Your task to perform on an android device: toggle data saver in the chrome app Image 0: 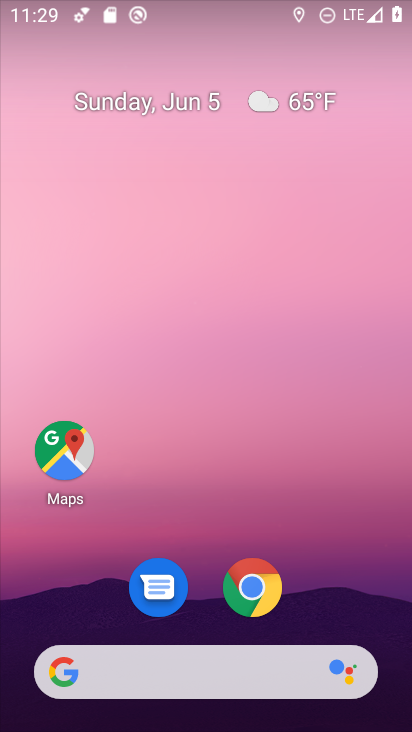
Step 0: click (251, 592)
Your task to perform on an android device: toggle data saver in the chrome app Image 1: 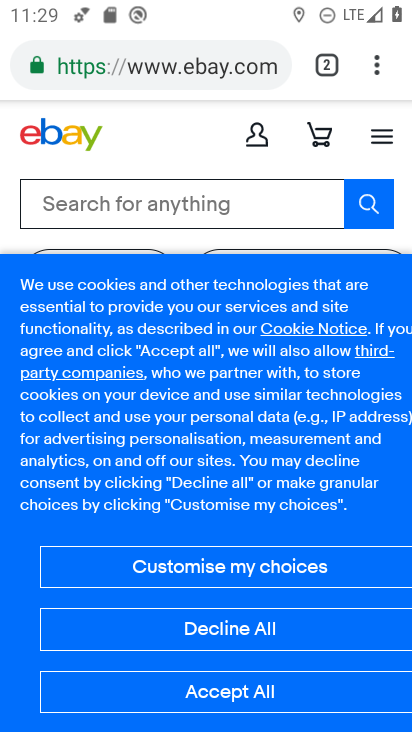
Step 1: click (385, 57)
Your task to perform on an android device: toggle data saver in the chrome app Image 2: 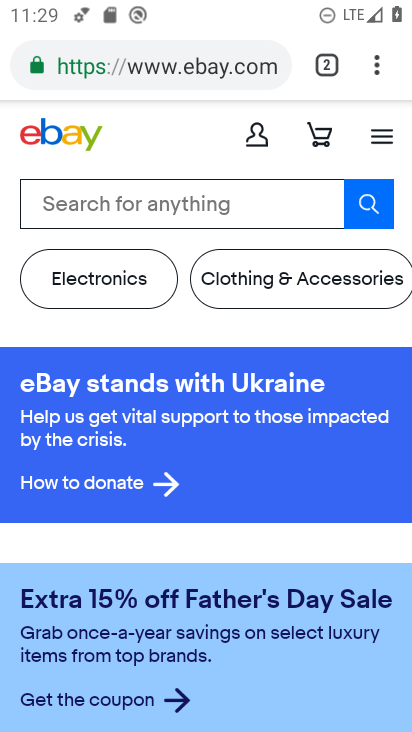
Step 2: click (386, 63)
Your task to perform on an android device: toggle data saver in the chrome app Image 3: 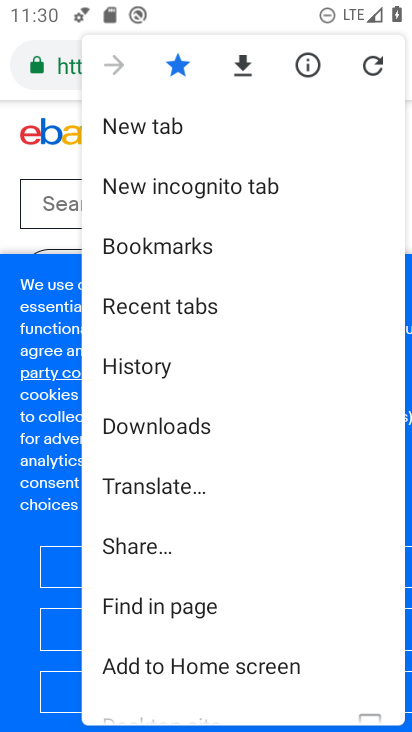
Step 3: drag from (152, 622) to (235, 142)
Your task to perform on an android device: toggle data saver in the chrome app Image 4: 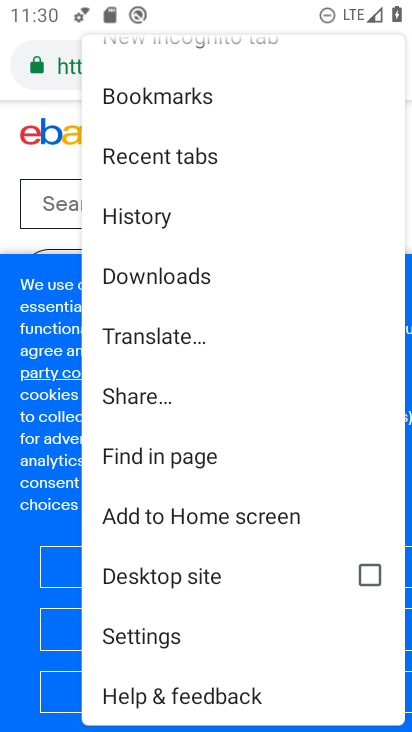
Step 4: click (152, 647)
Your task to perform on an android device: toggle data saver in the chrome app Image 5: 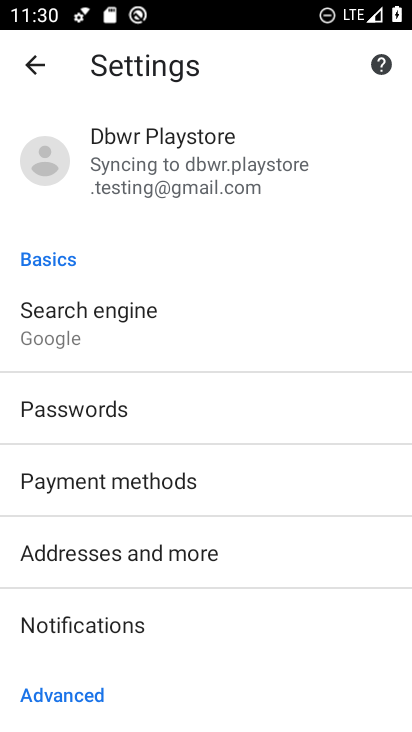
Step 5: drag from (125, 622) to (186, 336)
Your task to perform on an android device: toggle data saver in the chrome app Image 6: 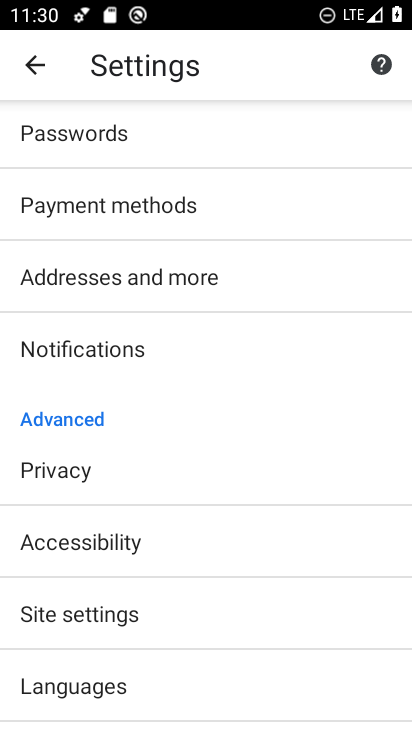
Step 6: drag from (80, 671) to (166, 221)
Your task to perform on an android device: toggle data saver in the chrome app Image 7: 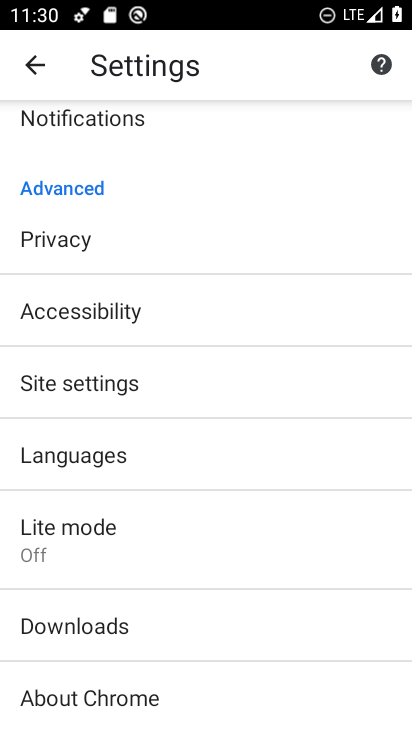
Step 7: click (109, 522)
Your task to perform on an android device: toggle data saver in the chrome app Image 8: 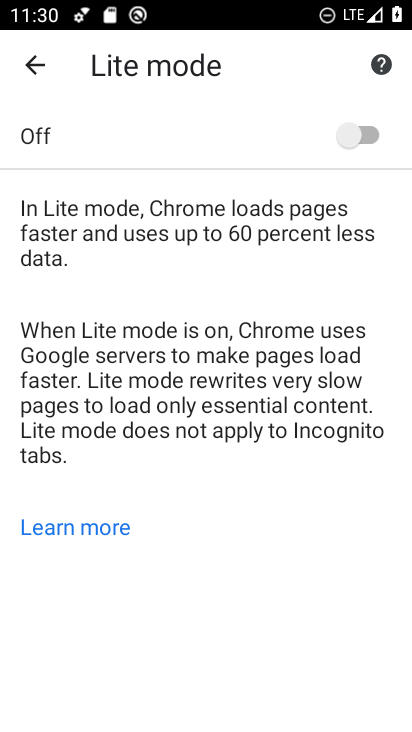
Step 8: click (380, 141)
Your task to perform on an android device: toggle data saver in the chrome app Image 9: 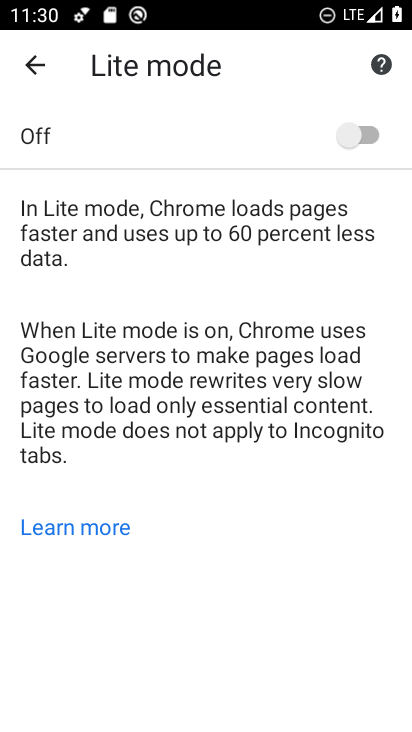
Step 9: click (380, 141)
Your task to perform on an android device: toggle data saver in the chrome app Image 10: 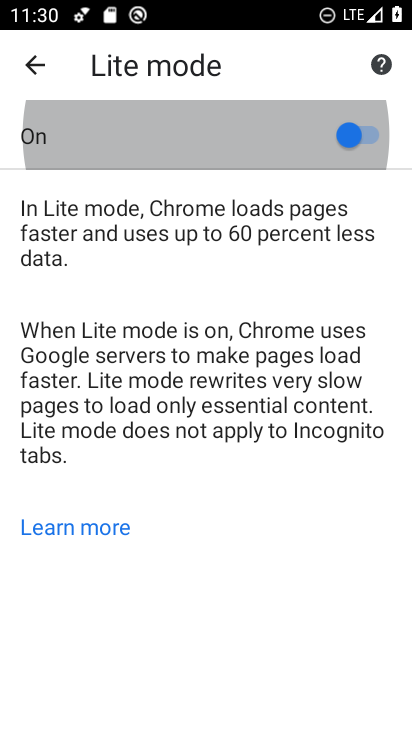
Step 10: click (380, 141)
Your task to perform on an android device: toggle data saver in the chrome app Image 11: 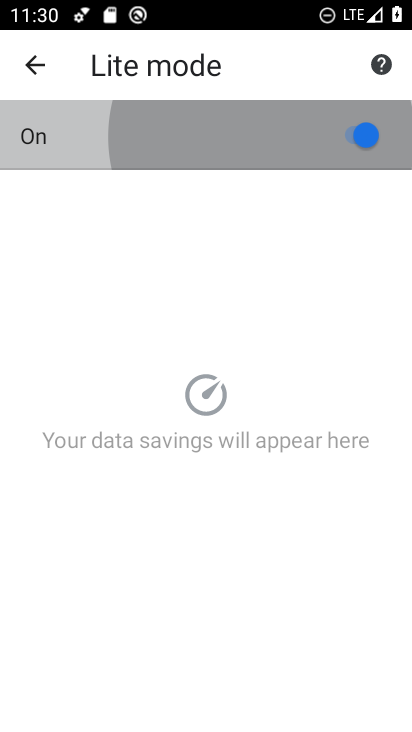
Step 11: click (380, 141)
Your task to perform on an android device: toggle data saver in the chrome app Image 12: 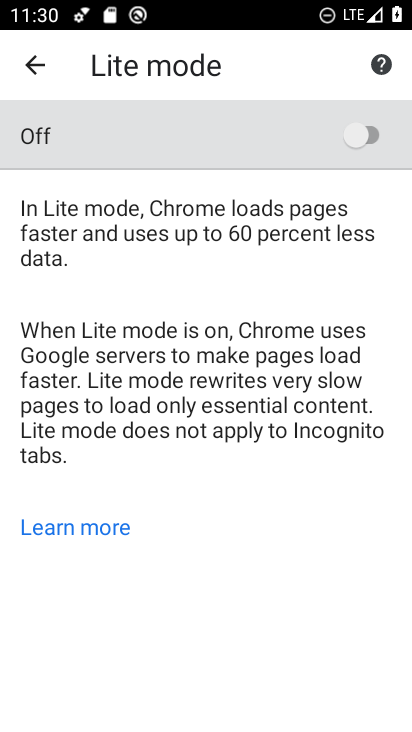
Step 12: click (380, 141)
Your task to perform on an android device: toggle data saver in the chrome app Image 13: 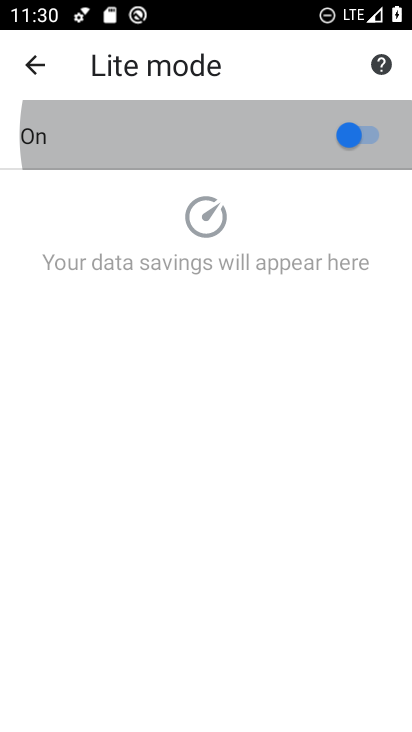
Step 13: click (380, 141)
Your task to perform on an android device: toggle data saver in the chrome app Image 14: 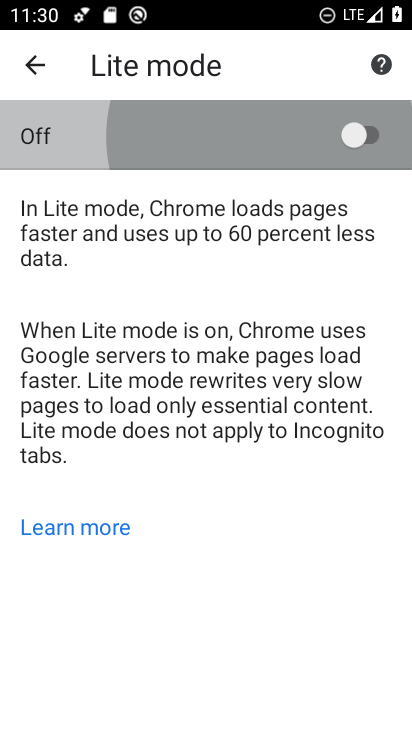
Step 14: click (380, 141)
Your task to perform on an android device: toggle data saver in the chrome app Image 15: 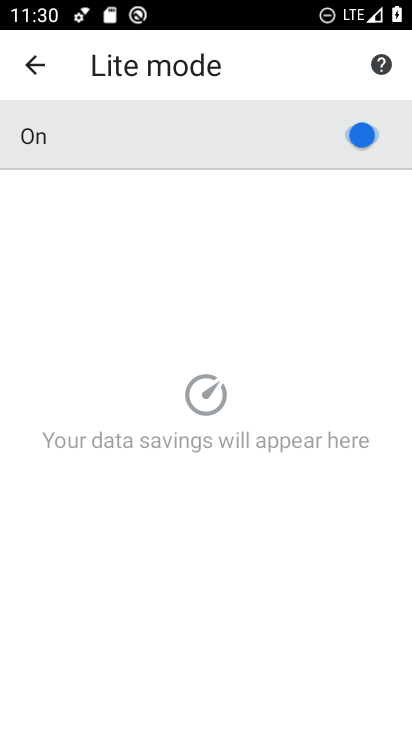
Step 15: click (380, 141)
Your task to perform on an android device: toggle data saver in the chrome app Image 16: 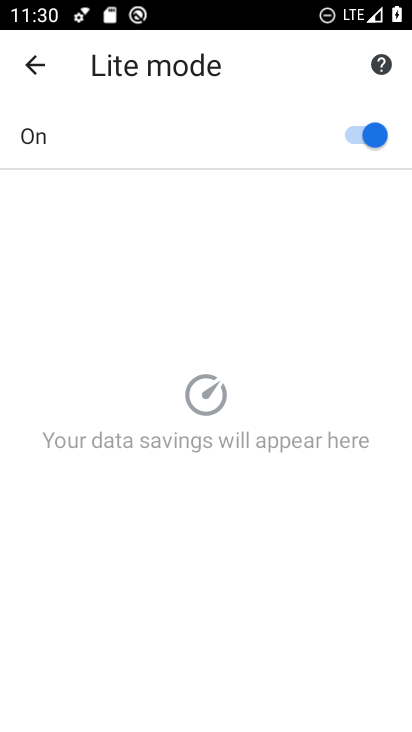
Step 16: task complete